Your task to perform on an android device: Show the shopping cart on bestbuy. Add logitech g502 to the cart on bestbuy, then select checkout. Image 0: 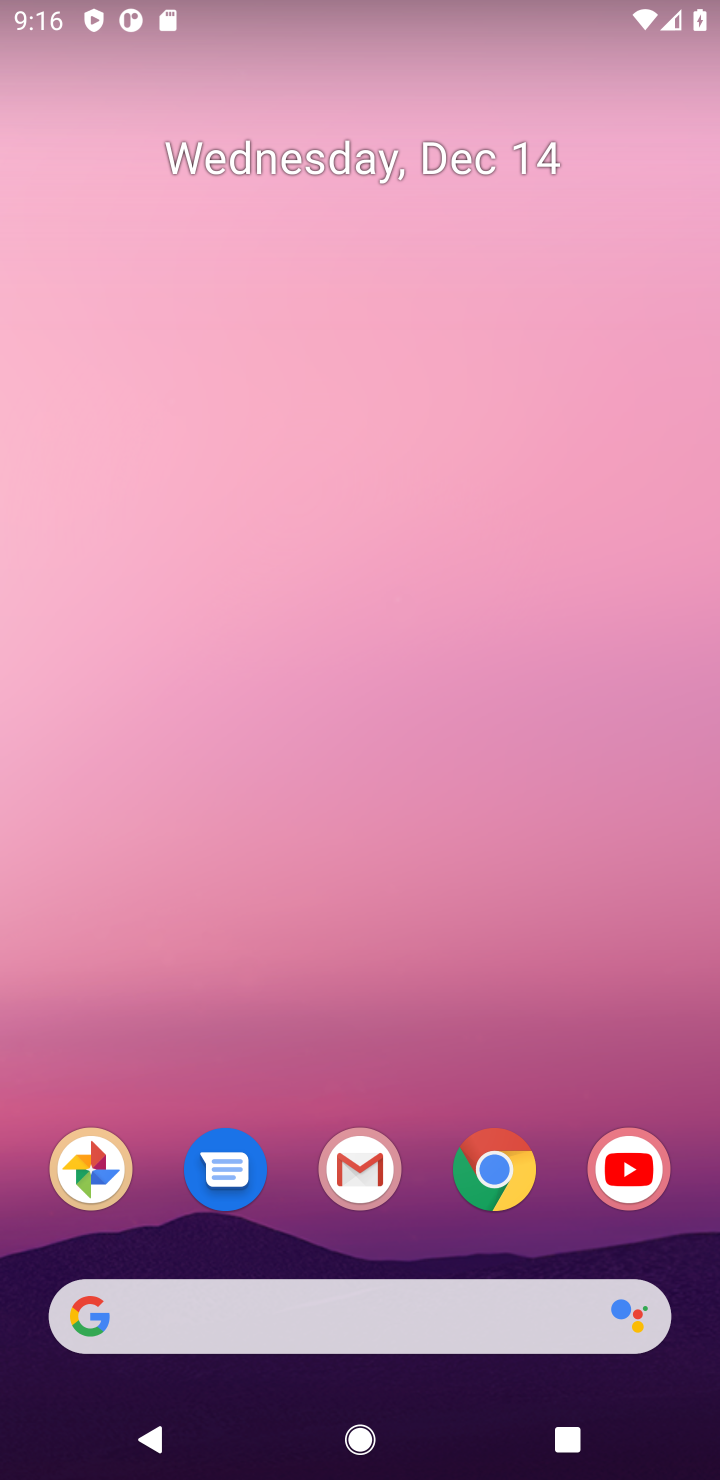
Step 0: click (521, 1174)
Your task to perform on an android device: Show the shopping cart on bestbuy. Add logitech g502 to the cart on bestbuy, then select checkout. Image 1: 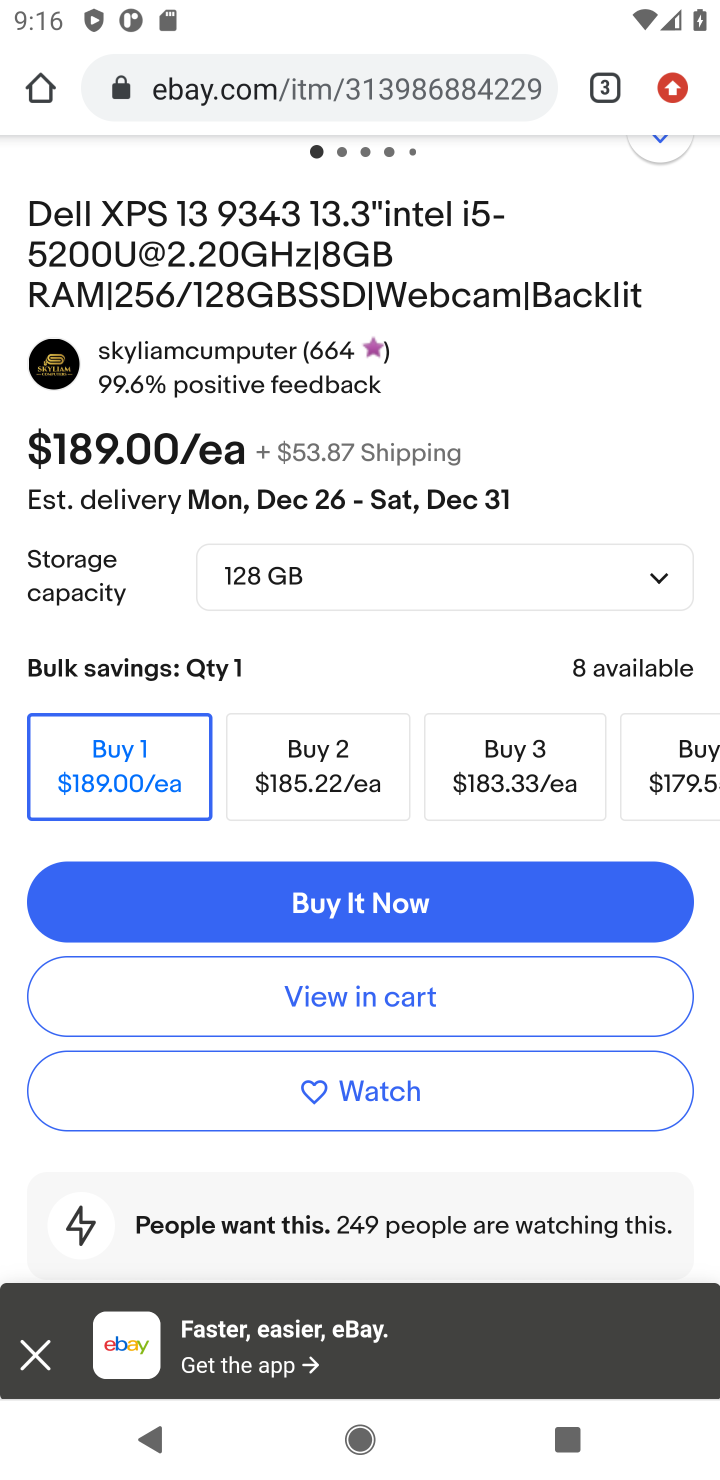
Step 1: click (599, 85)
Your task to perform on an android device: Show the shopping cart on bestbuy. Add logitech g502 to the cart on bestbuy, then select checkout. Image 2: 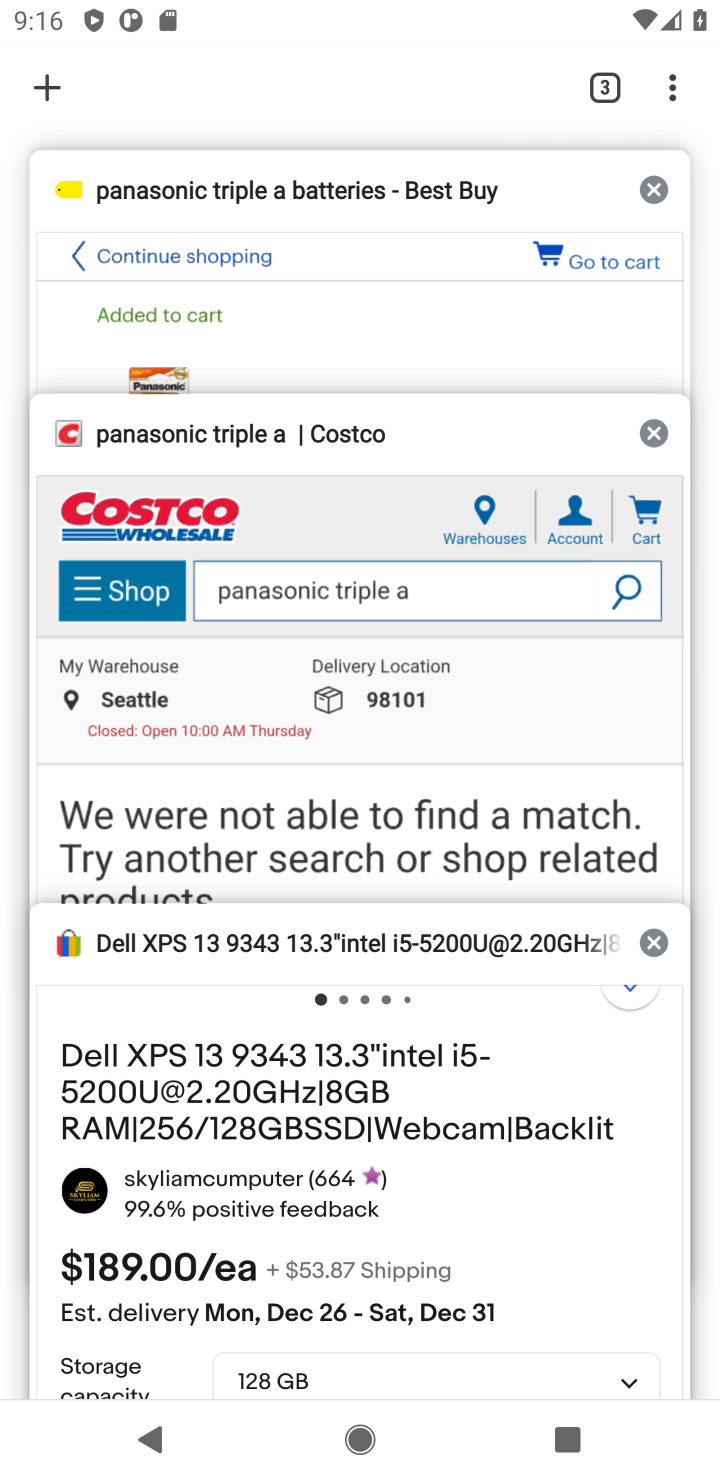
Step 2: click (348, 320)
Your task to perform on an android device: Show the shopping cart on bestbuy. Add logitech g502 to the cart on bestbuy, then select checkout. Image 3: 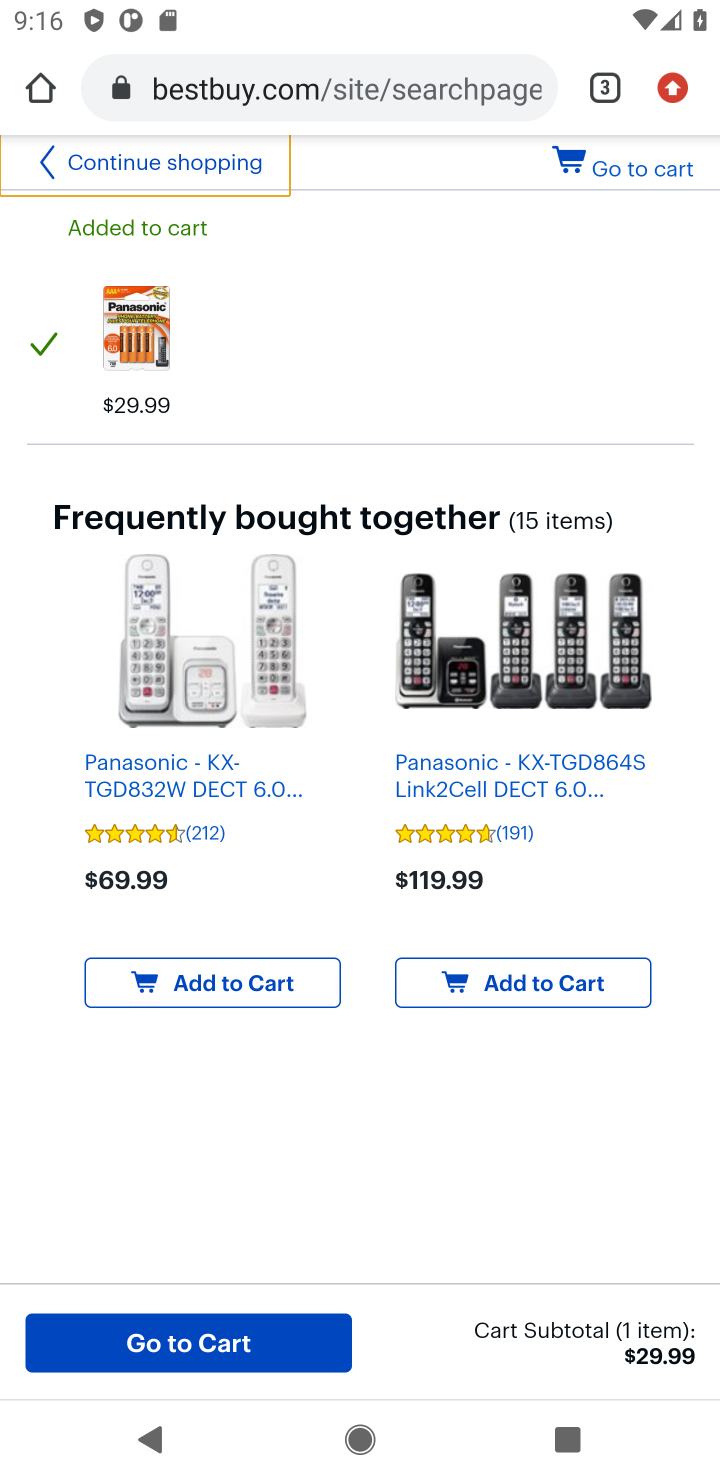
Step 3: click (140, 170)
Your task to perform on an android device: Show the shopping cart on bestbuy. Add logitech g502 to the cart on bestbuy, then select checkout. Image 4: 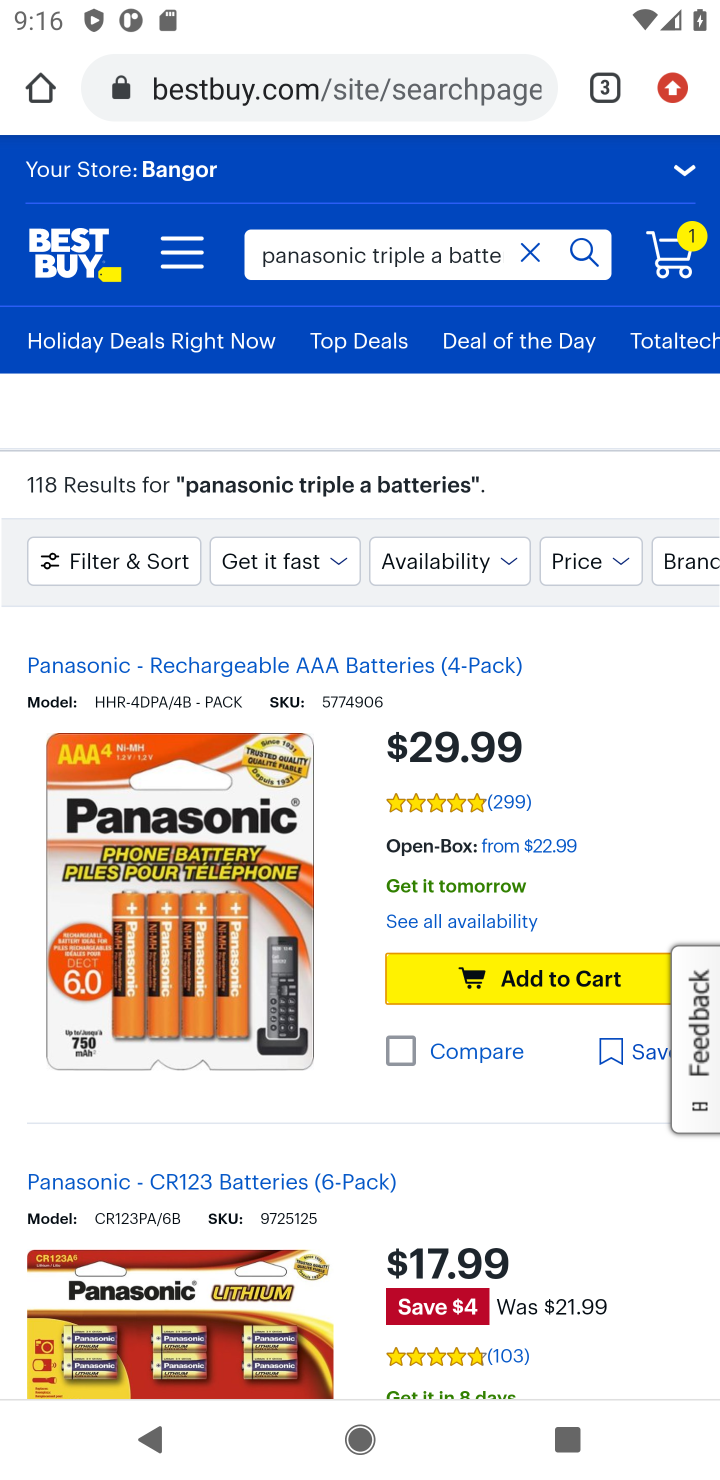
Step 4: click (517, 243)
Your task to perform on an android device: Show the shopping cart on bestbuy. Add logitech g502 to the cart on bestbuy, then select checkout. Image 5: 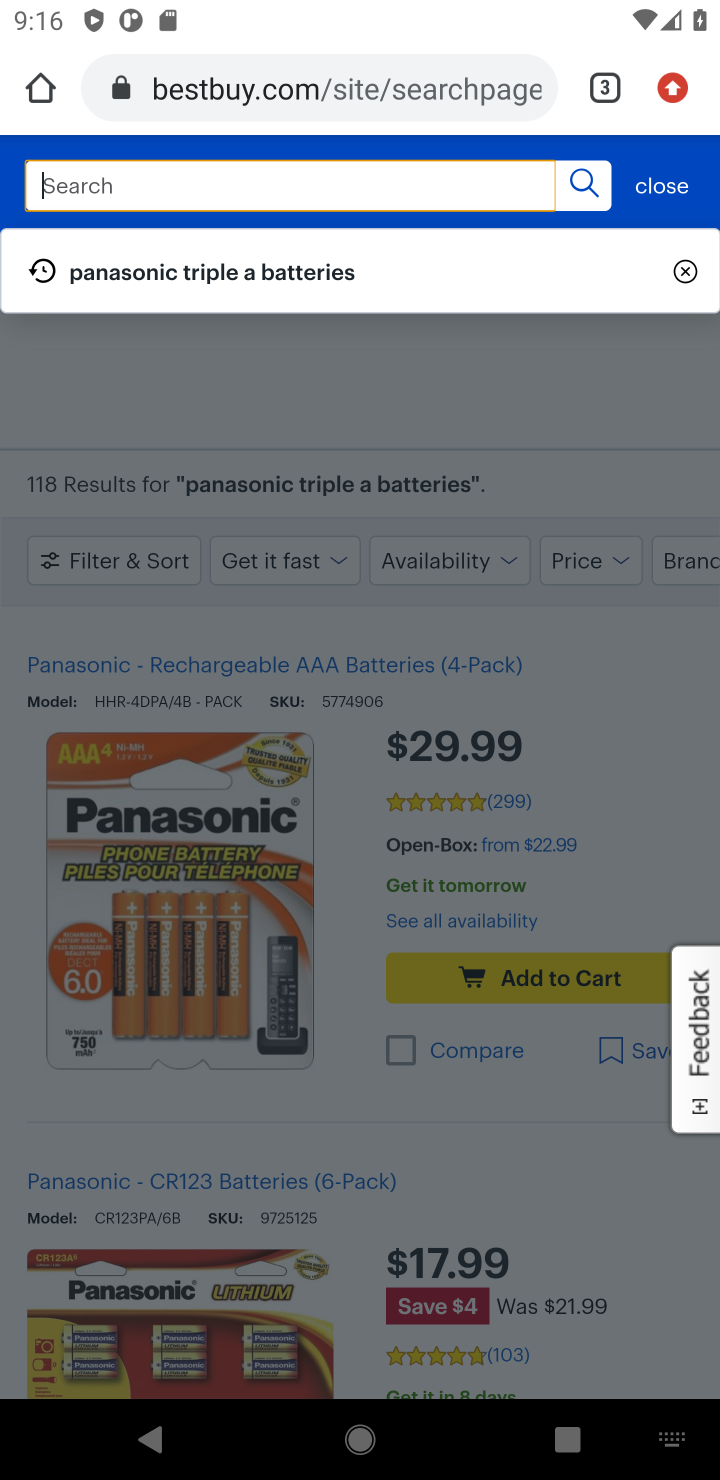
Step 5: type "logitech g502"
Your task to perform on an android device: Show the shopping cart on bestbuy. Add logitech g502 to the cart on bestbuy, then select checkout. Image 6: 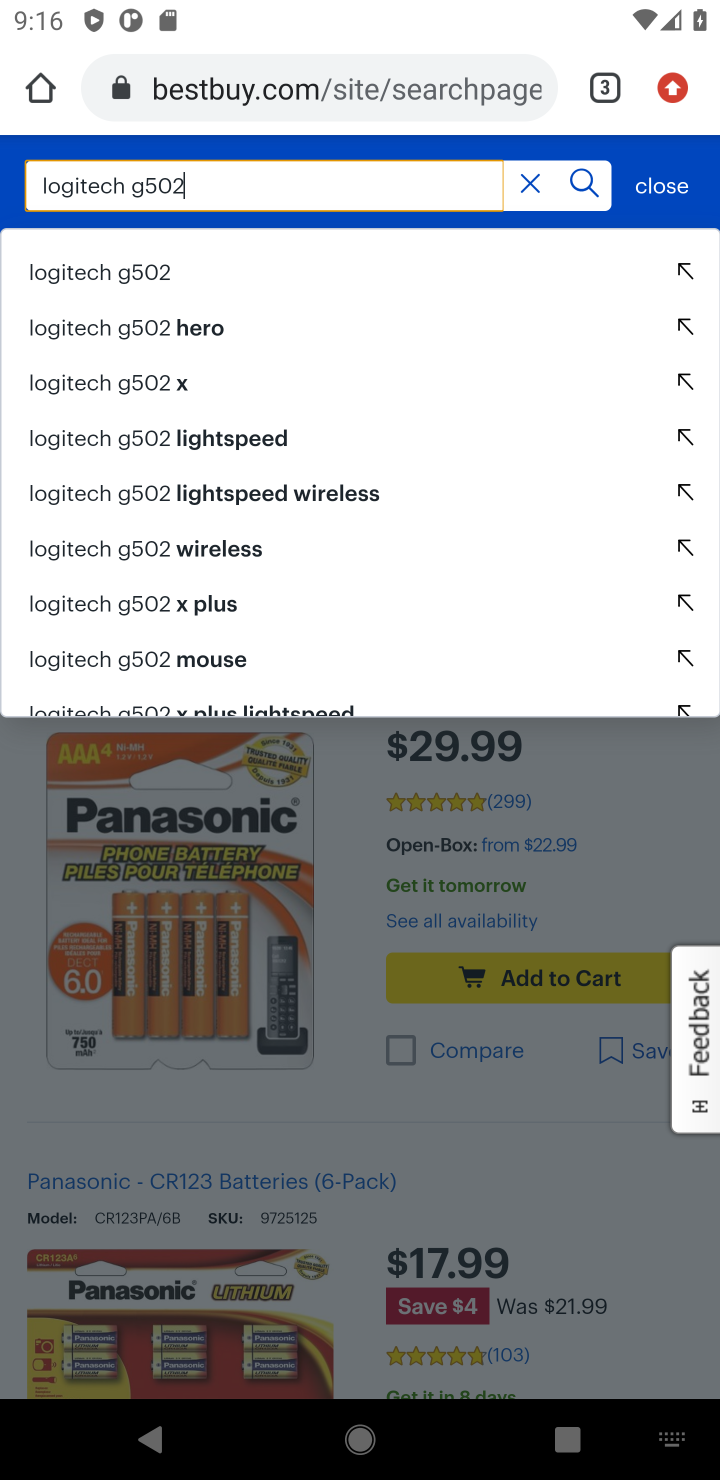
Step 6: click (146, 268)
Your task to perform on an android device: Show the shopping cart on bestbuy. Add logitech g502 to the cart on bestbuy, then select checkout. Image 7: 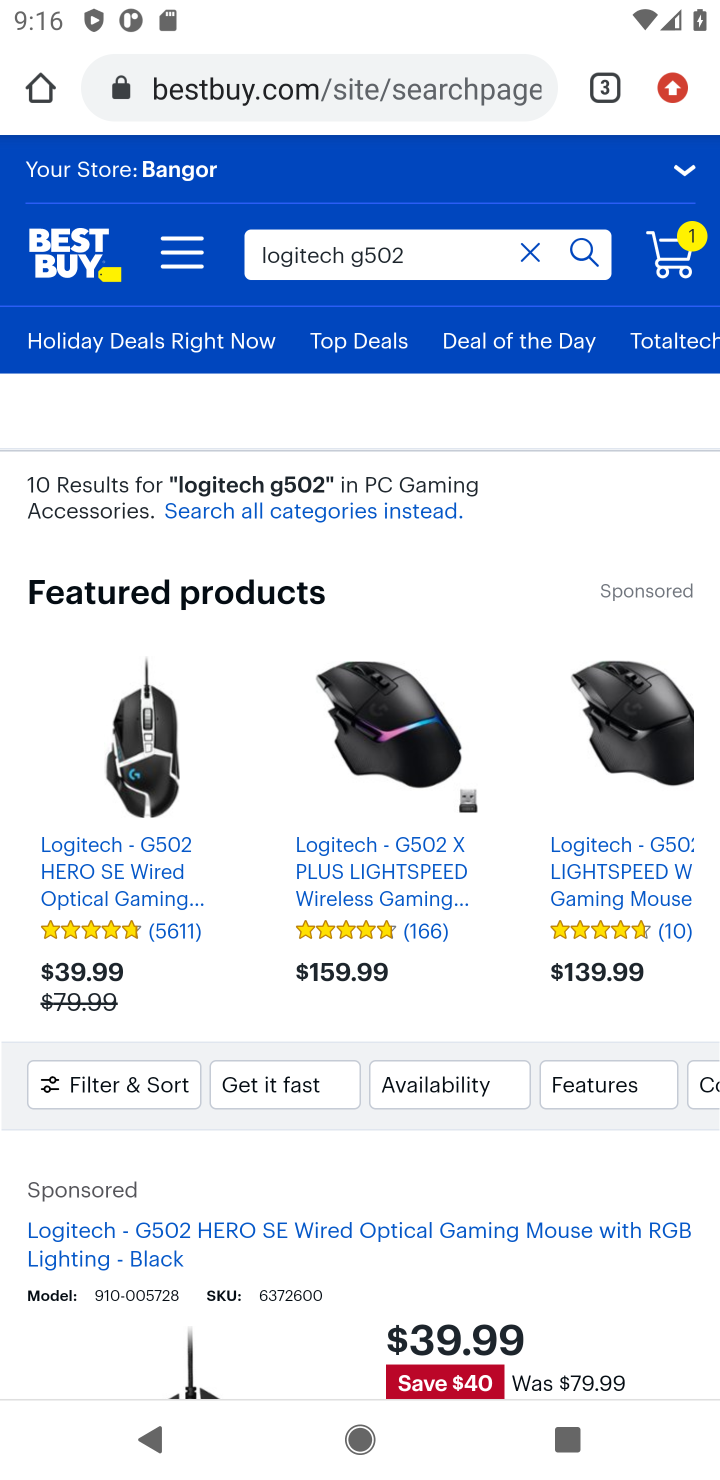
Step 7: drag from (288, 877) to (434, 435)
Your task to perform on an android device: Show the shopping cart on bestbuy. Add logitech g502 to the cart on bestbuy, then select checkout. Image 8: 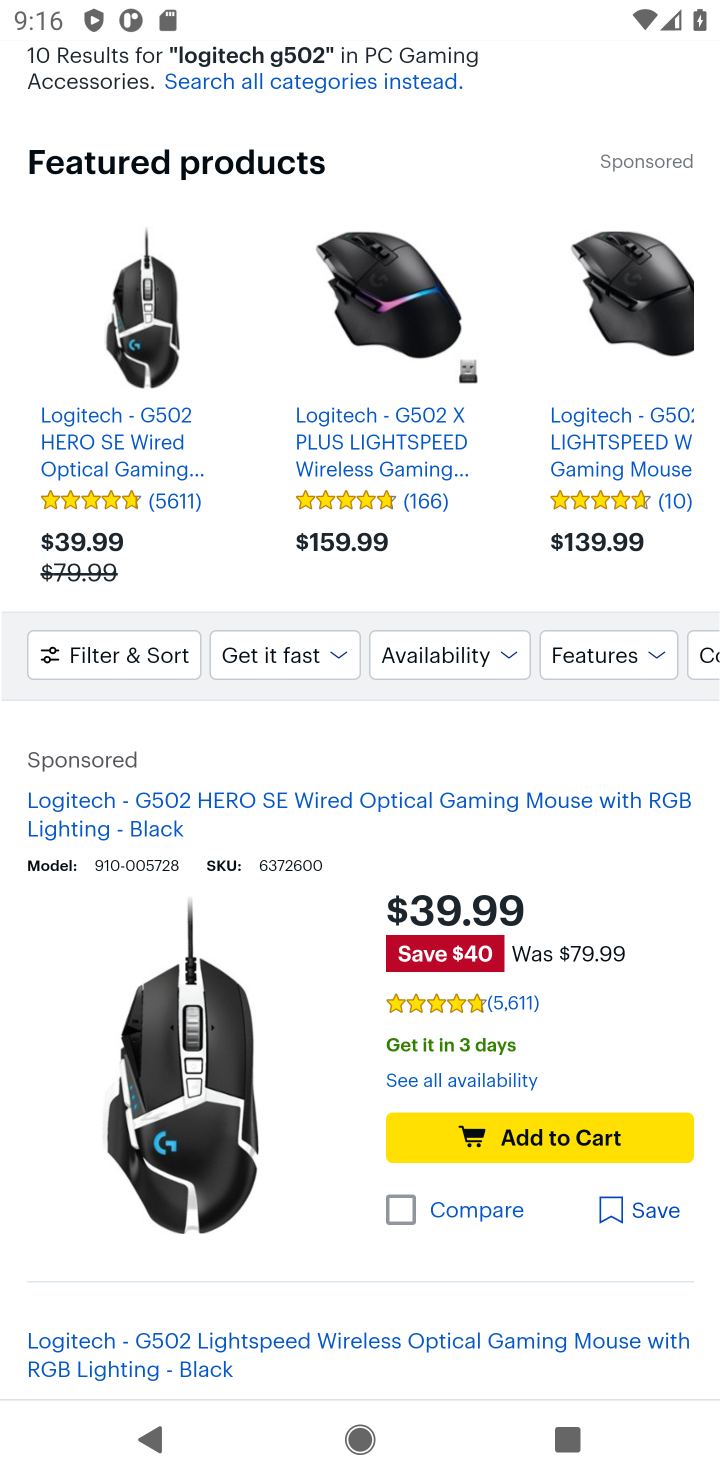
Step 8: click (571, 1142)
Your task to perform on an android device: Show the shopping cart on bestbuy. Add logitech g502 to the cart on bestbuy, then select checkout. Image 9: 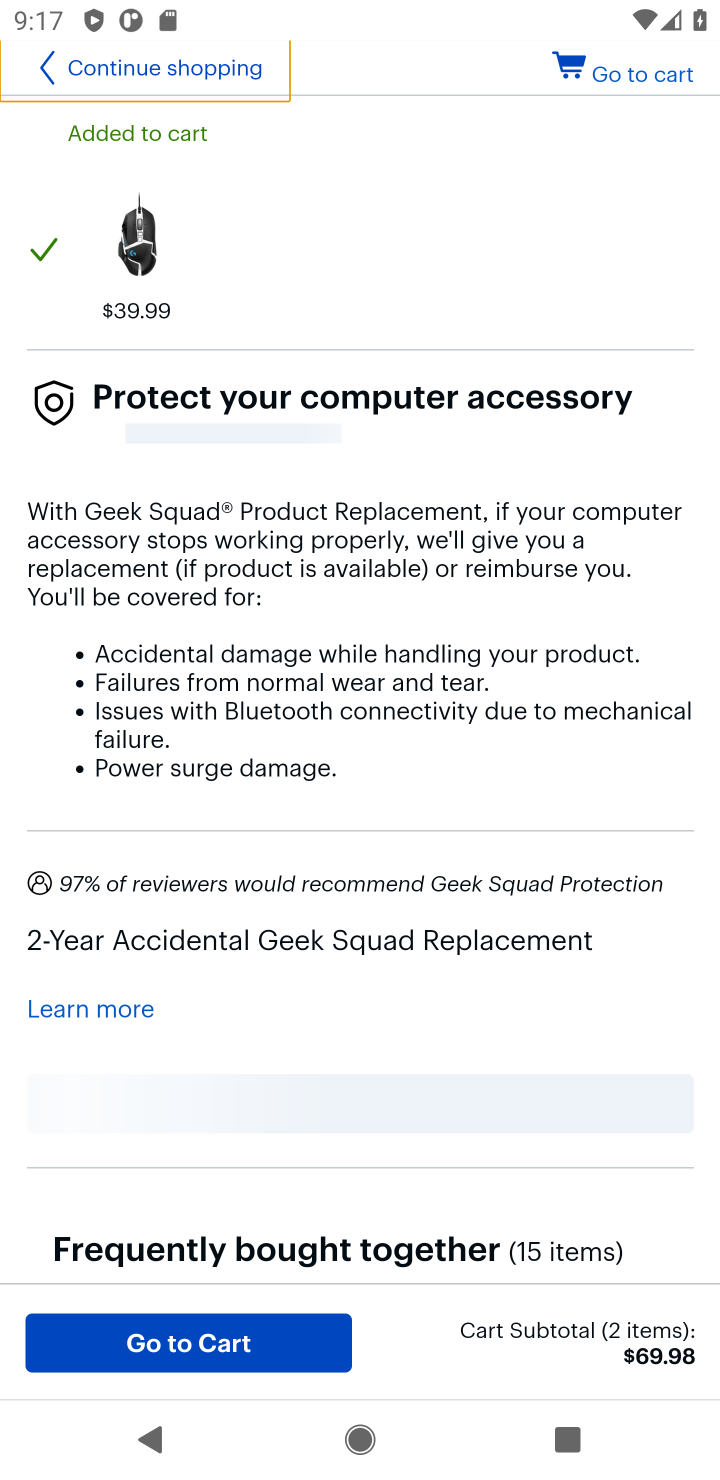
Step 9: task complete